Your task to perform on an android device: Open the Play Movies app and select the watchlist tab. Image 0: 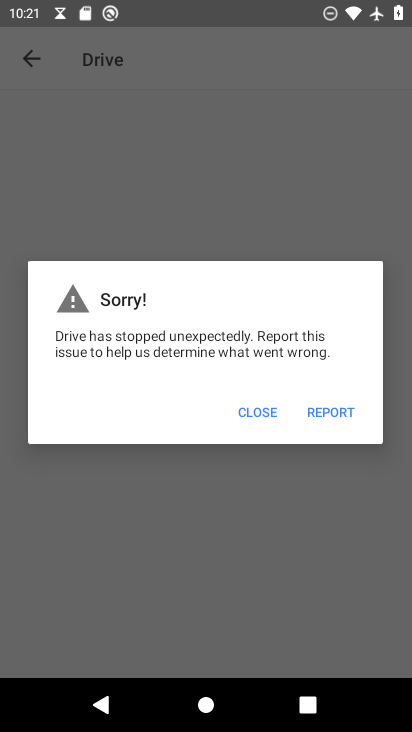
Step 0: press home button
Your task to perform on an android device: Open the Play Movies app and select the watchlist tab. Image 1: 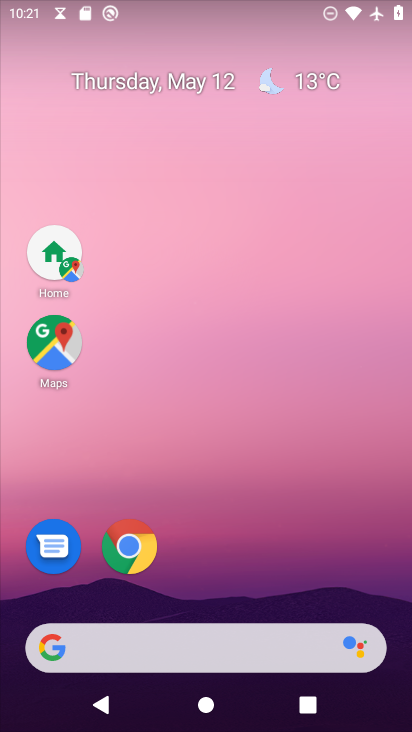
Step 1: drag from (167, 649) to (336, 47)
Your task to perform on an android device: Open the Play Movies app and select the watchlist tab. Image 2: 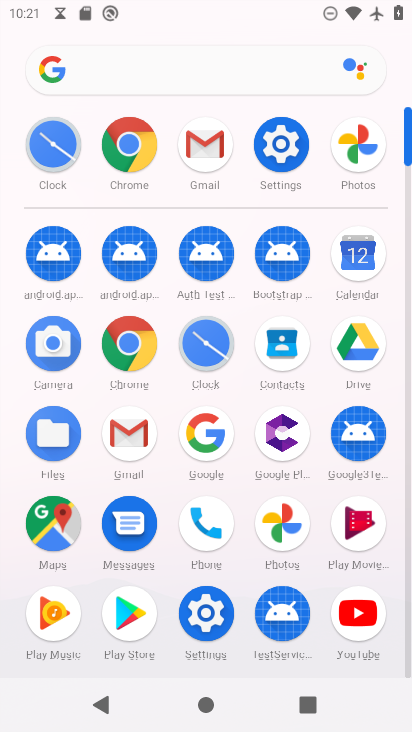
Step 2: click (362, 533)
Your task to perform on an android device: Open the Play Movies app and select the watchlist tab. Image 3: 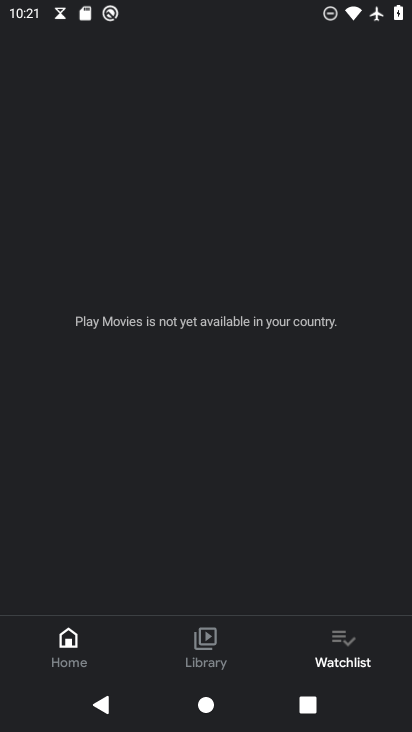
Step 3: click (333, 670)
Your task to perform on an android device: Open the Play Movies app and select the watchlist tab. Image 4: 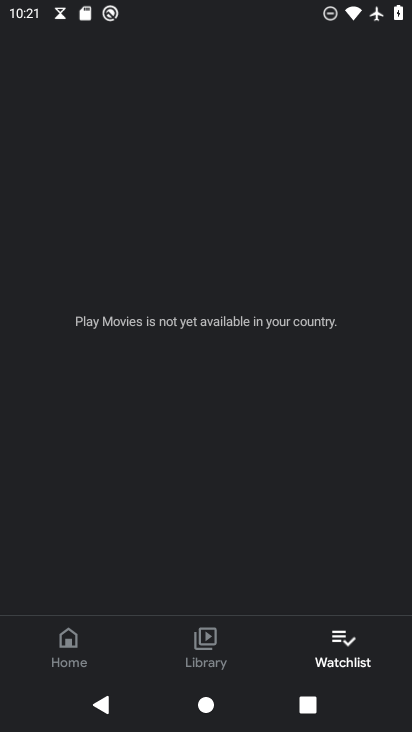
Step 4: task complete